Your task to perform on an android device: Show me productivity apps on the Play Store Image 0: 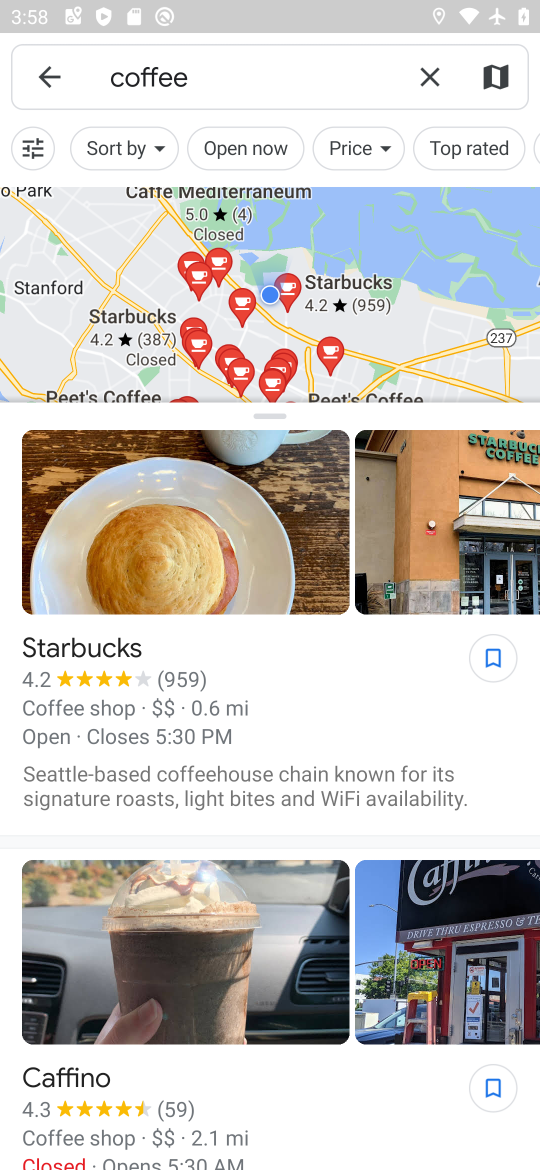
Step 0: press home button
Your task to perform on an android device: Show me productivity apps on the Play Store Image 1: 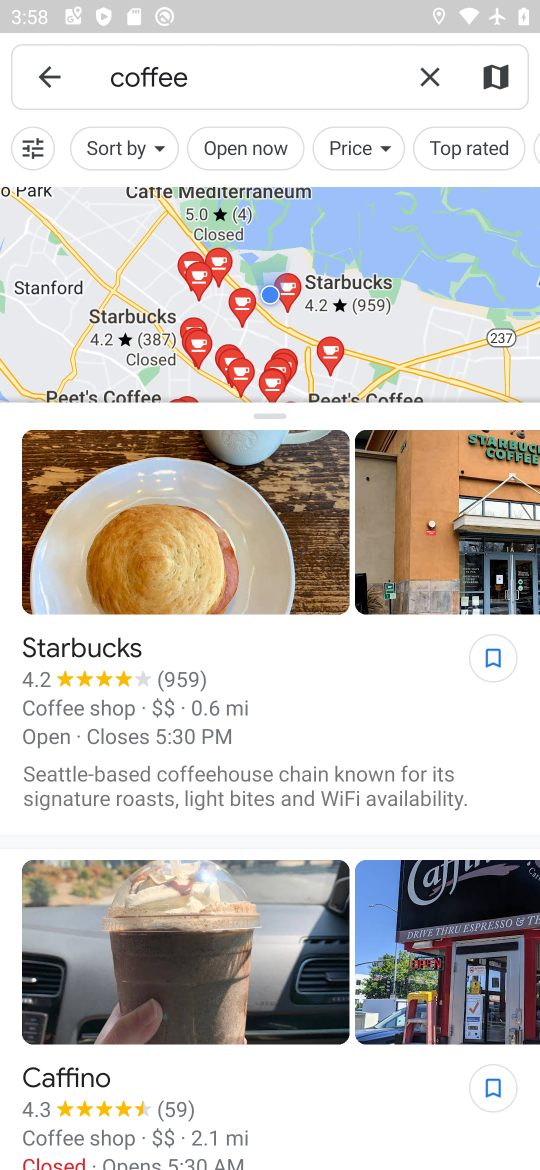
Step 1: press home button
Your task to perform on an android device: Show me productivity apps on the Play Store Image 2: 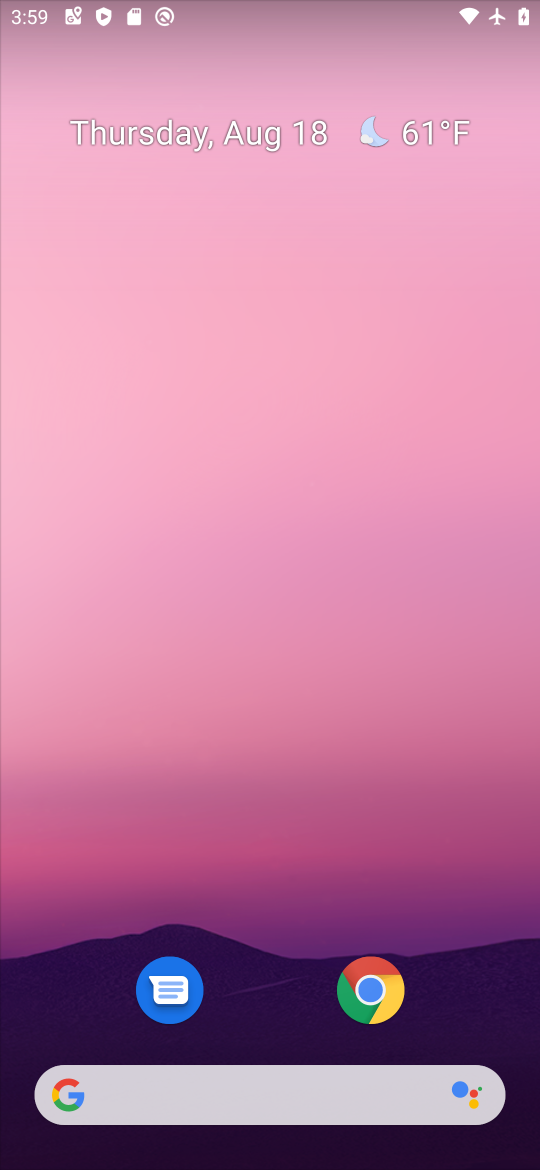
Step 2: drag from (229, 931) to (353, 9)
Your task to perform on an android device: Show me productivity apps on the Play Store Image 3: 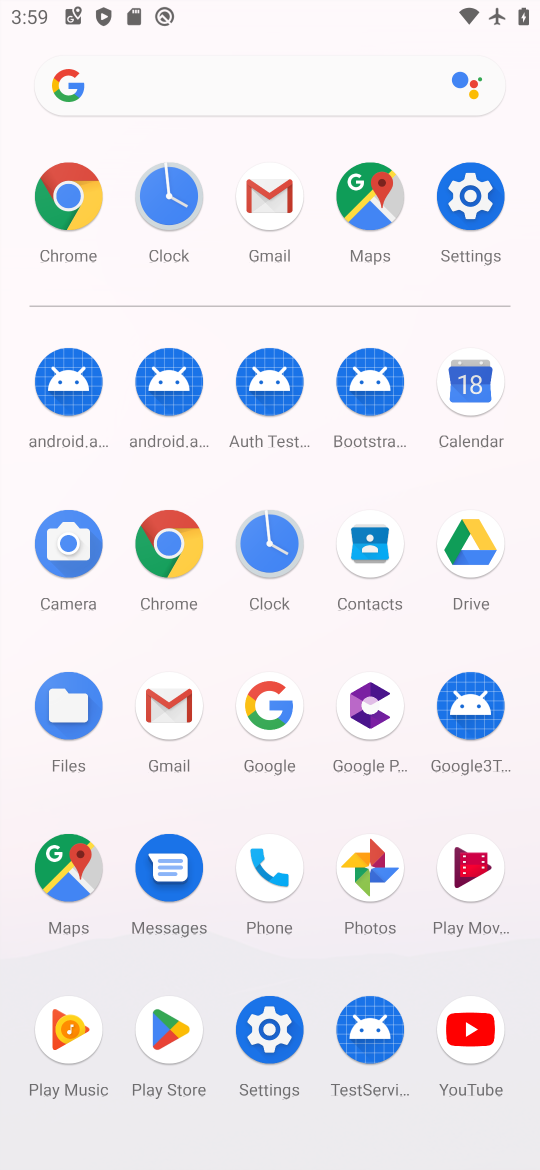
Step 3: click (169, 1039)
Your task to perform on an android device: Show me productivity apps on the Play Store Image 4: 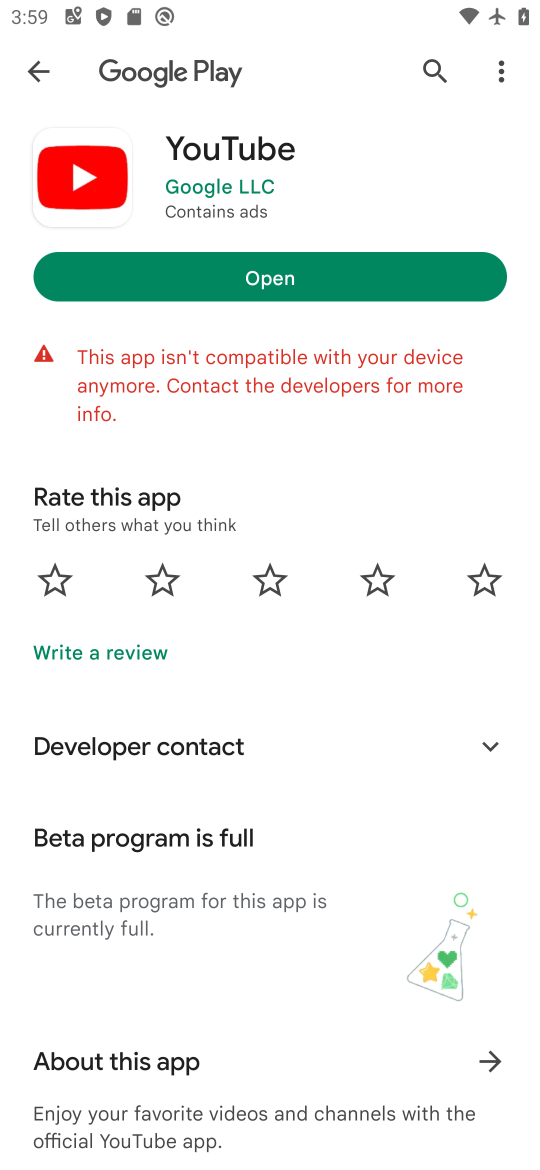
Step 4: click (30, 69)
Your task to perform on an android device: Show me productivity apps on the Play Store Image 5: 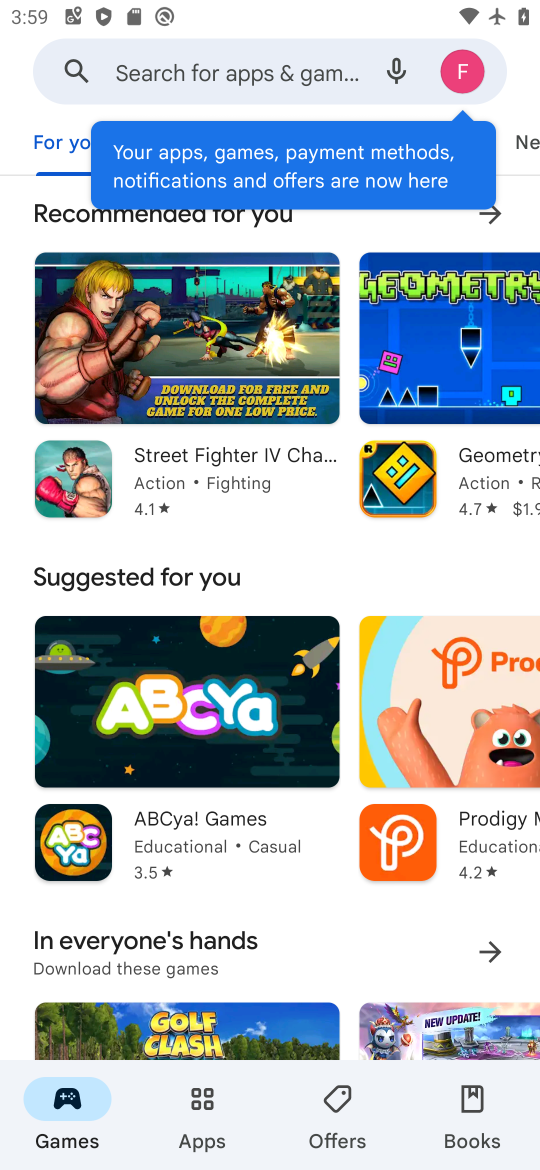
Step 5: click (215, 1110)
Your task to perform on an android device: Show me productivity apps on the Play Store Image 6: 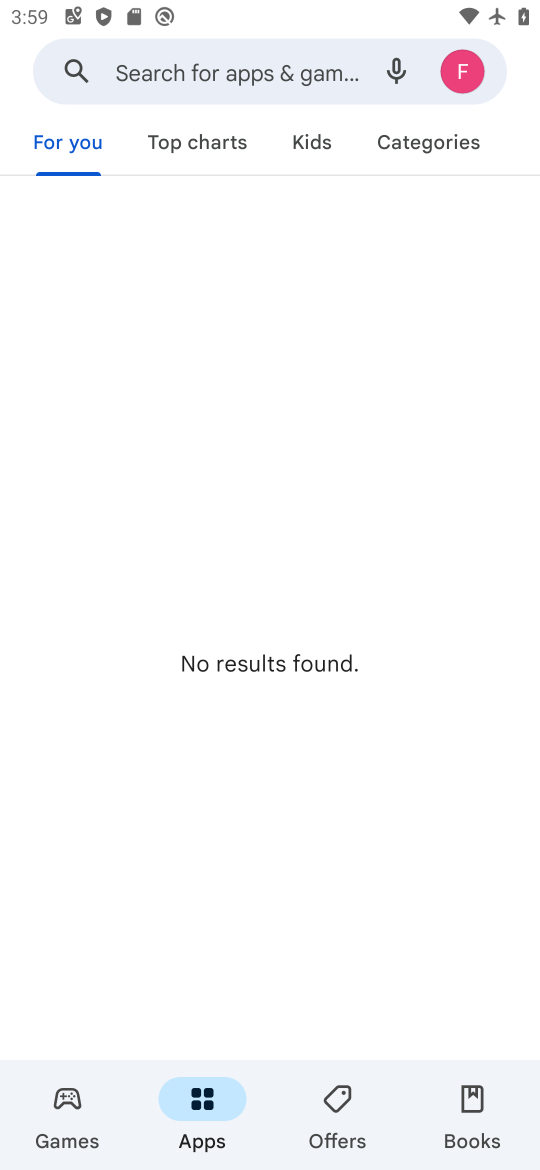
Step 6: click (191, 1041)
Your task to perform on an android device: Show me productivity apps on the Play Store Image 7: 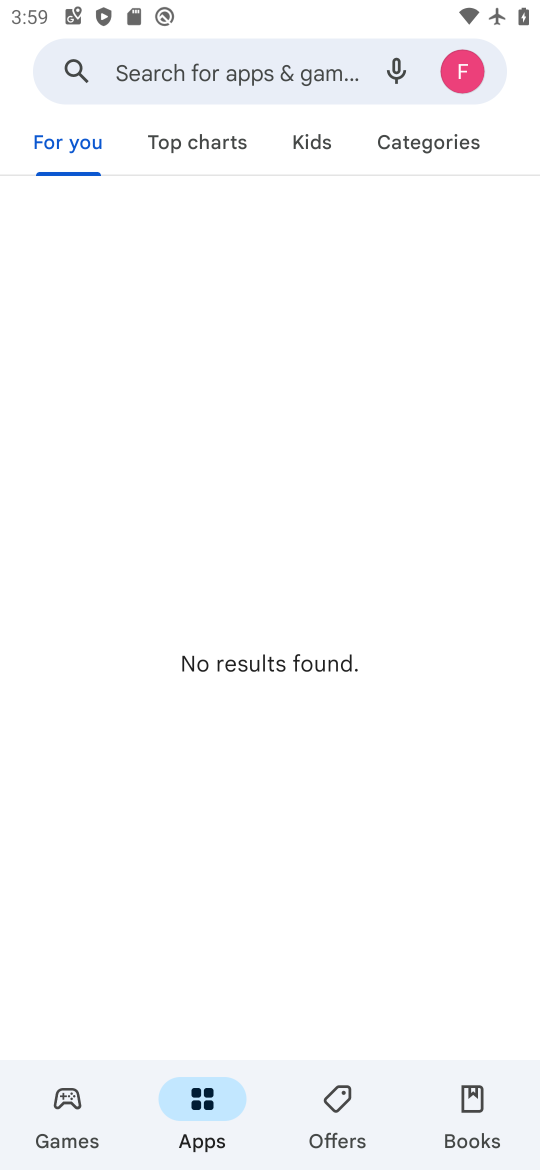
Step 7: task complete